Your task to perform on an android device: install app "Viber Messenger" Image 0: 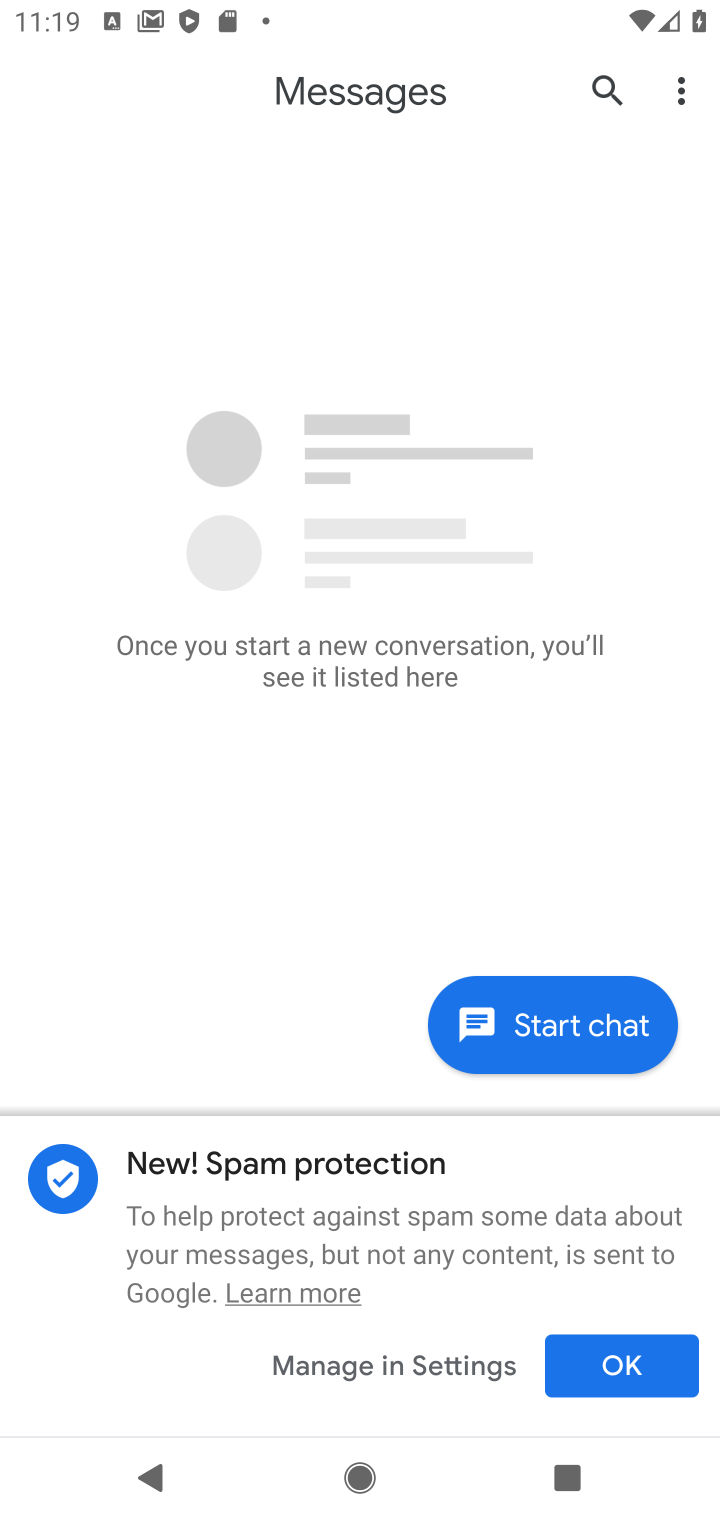
Step 0: press home button
Your task to perform on an android device: install app "Viber Messenger" Image 1: 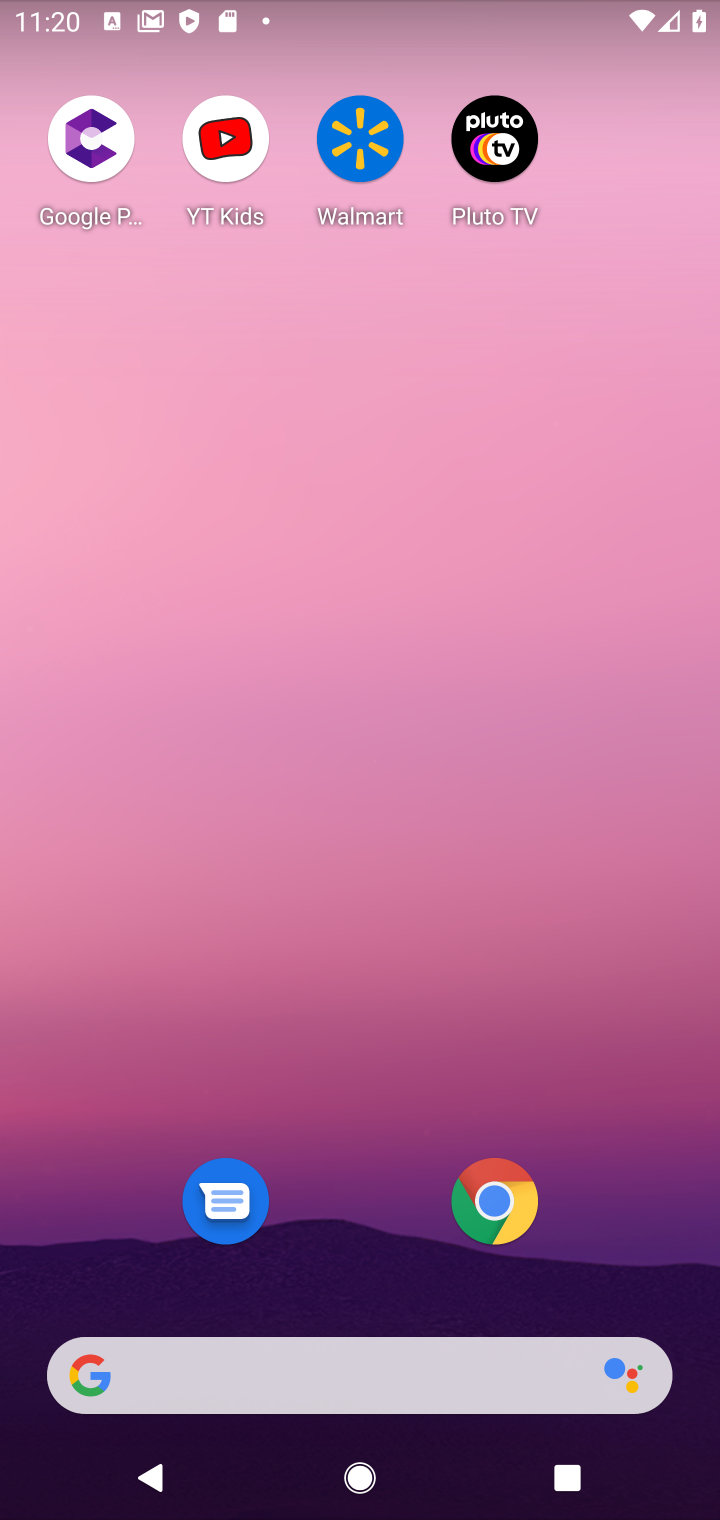
Step 1: drag from (356, 984) to (462, 140)
Your task to perform on an android device: install app "Viber Messenger" Image 2: 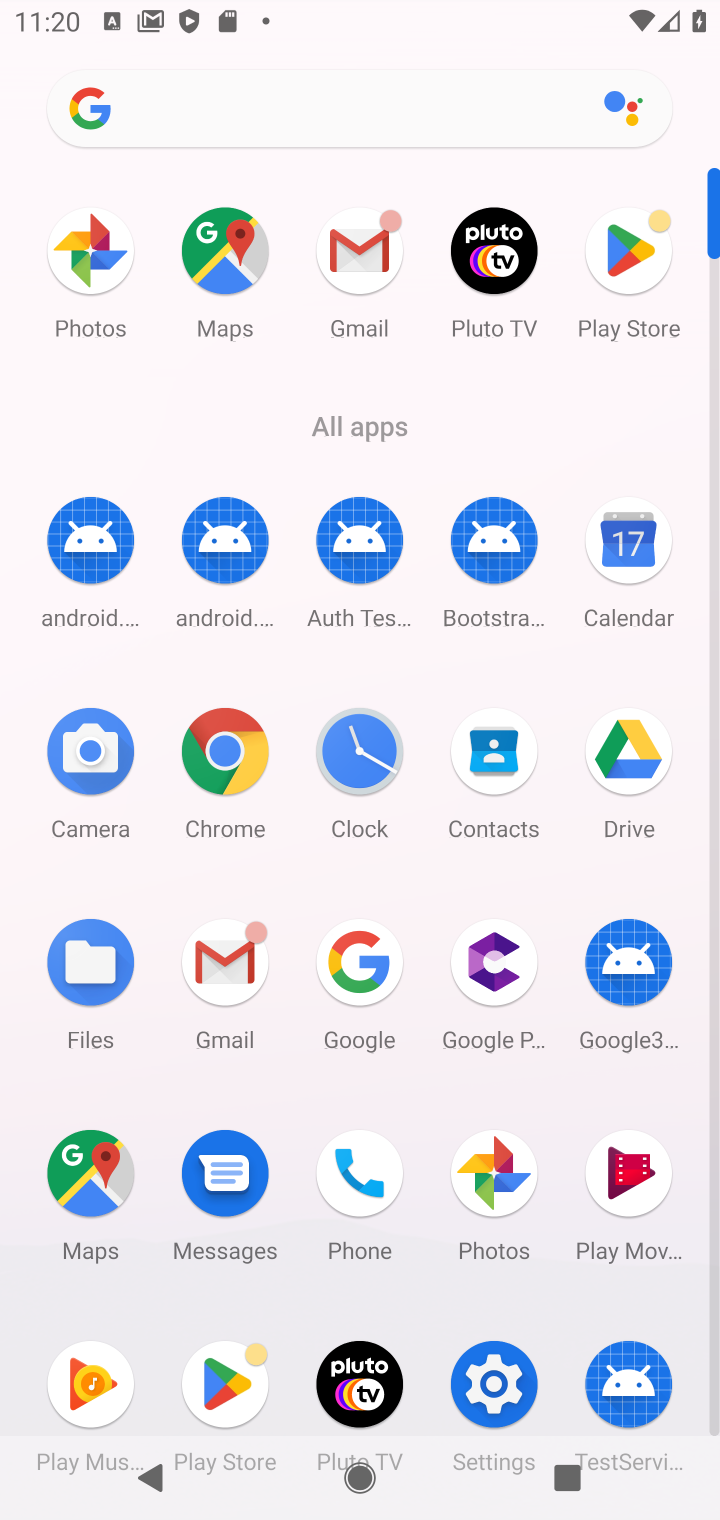
Step 2: click (631, 268)
Your task to perform on an android device: install app "Viber Messenger" Image 3: 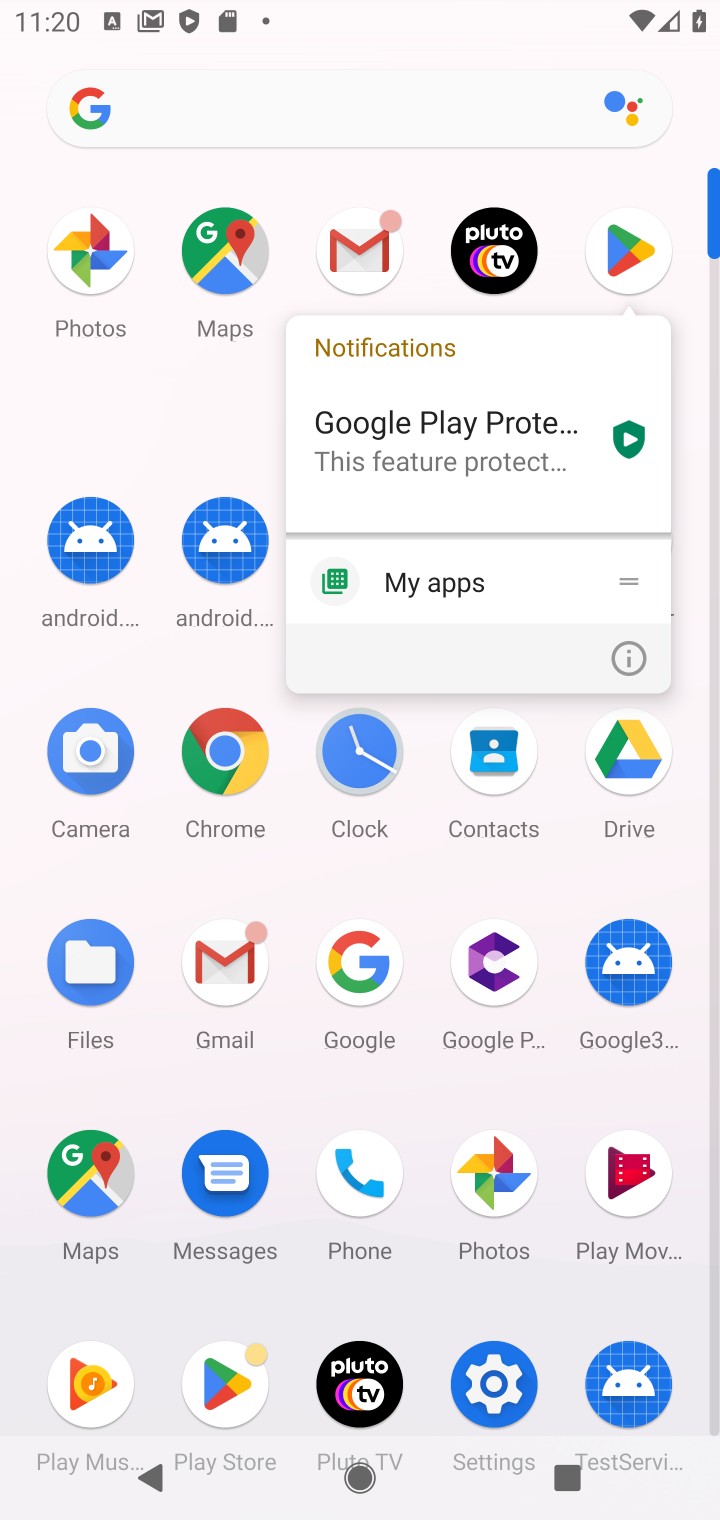
Step 3: click (624, 245)
Your task to perform on an android device: install app "Viber Messenger" Image 4: 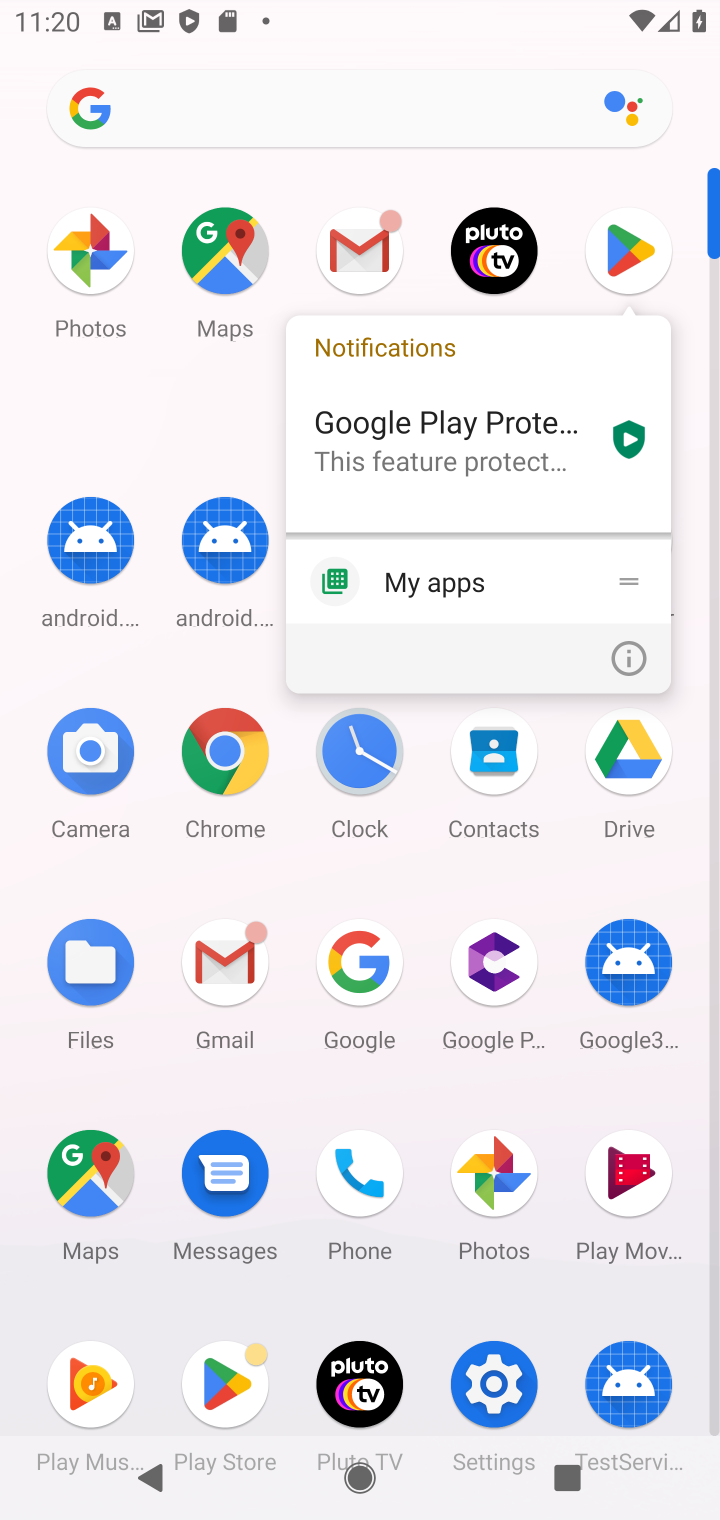
Step 4: click (622, 233)
Your task to perform on an android device: install app "Viber Messenger" Image 5: 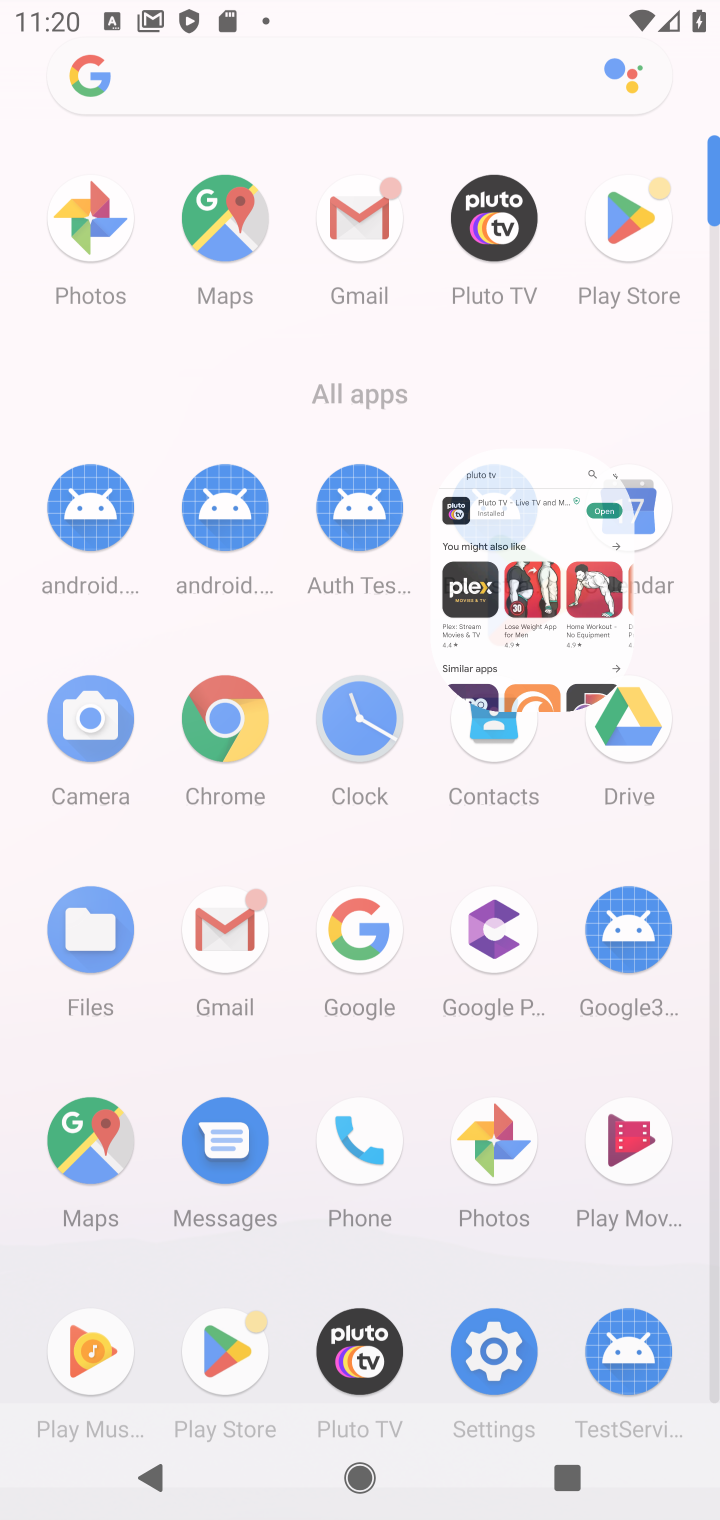
Step 5: click (626, 239)
Your task to perform on an android device: install app "Viber Messenger" Image 6: 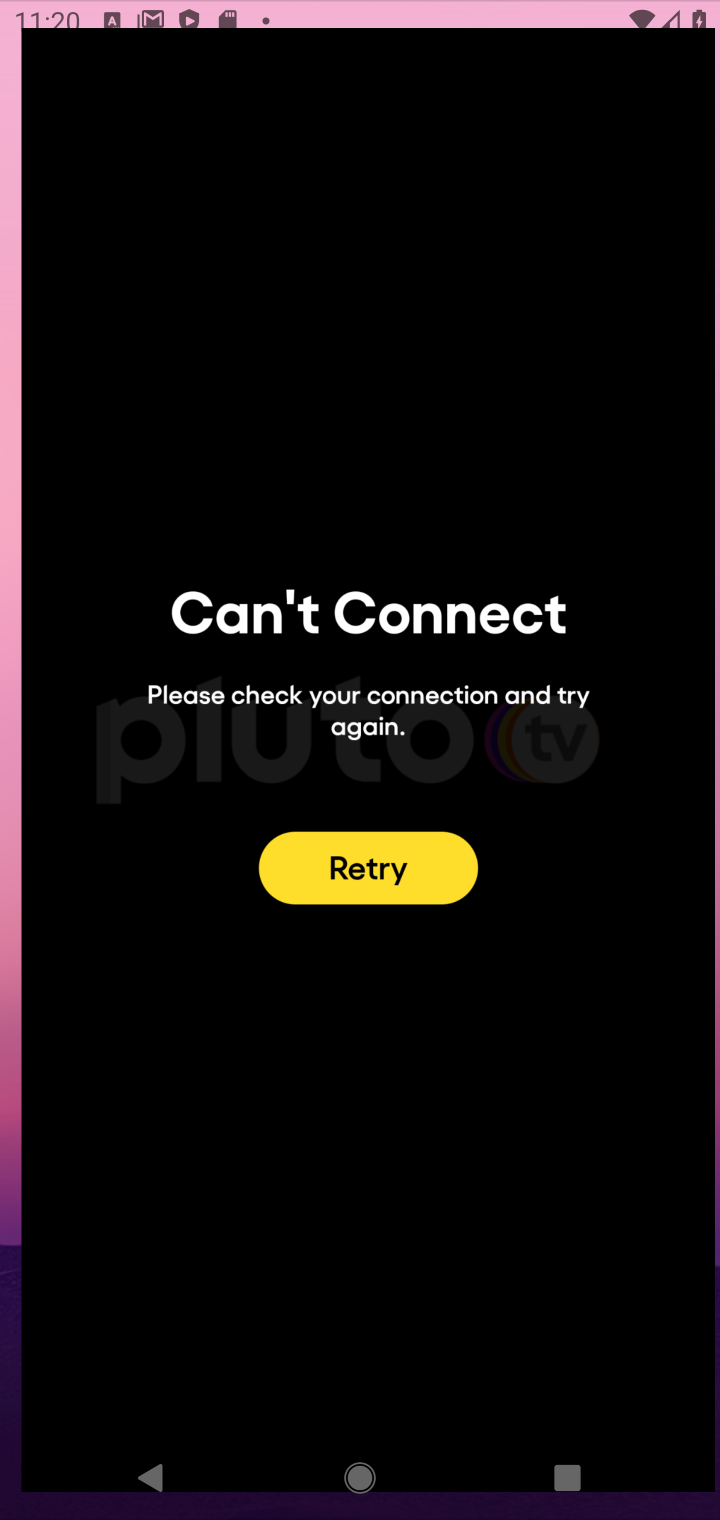
Step 6: click (285, 112)
Your task to perform on an android device: install app "Viber Messenger" Image 7: 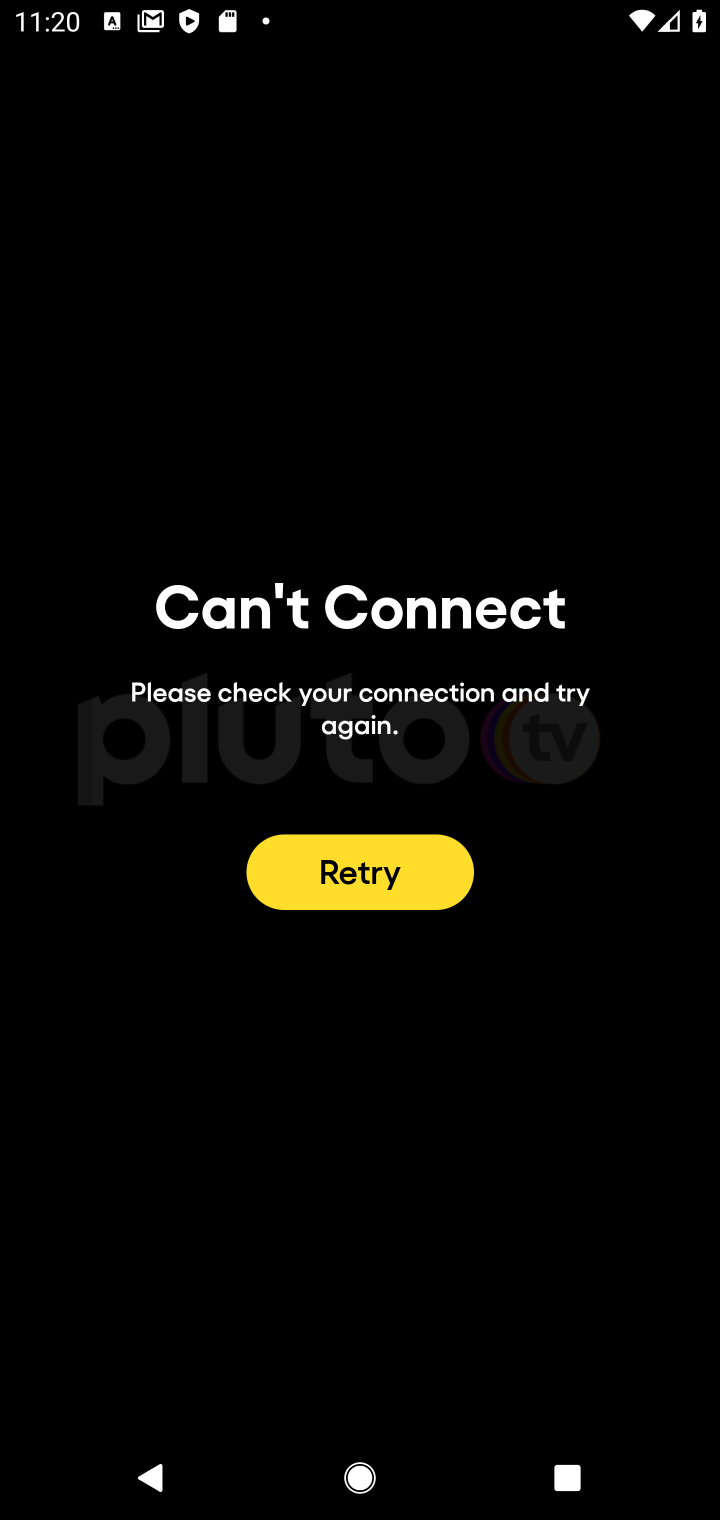
Step 7: press back button
Your task to perform on an android device: install app "Viber Messenger" Image 8: 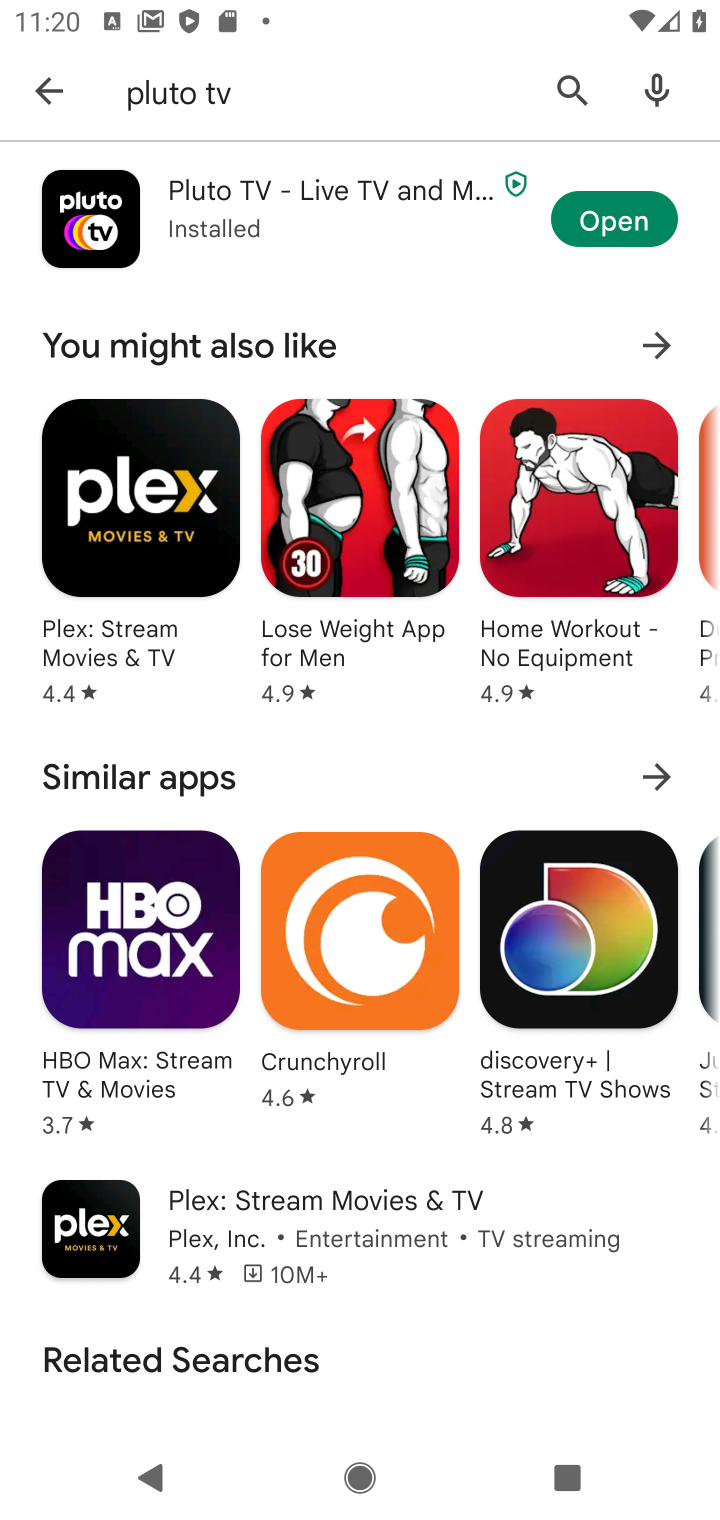
Step 8: click (193, 85)
Your task to perform on an android device: install app "Viber Messenger" Image 9: 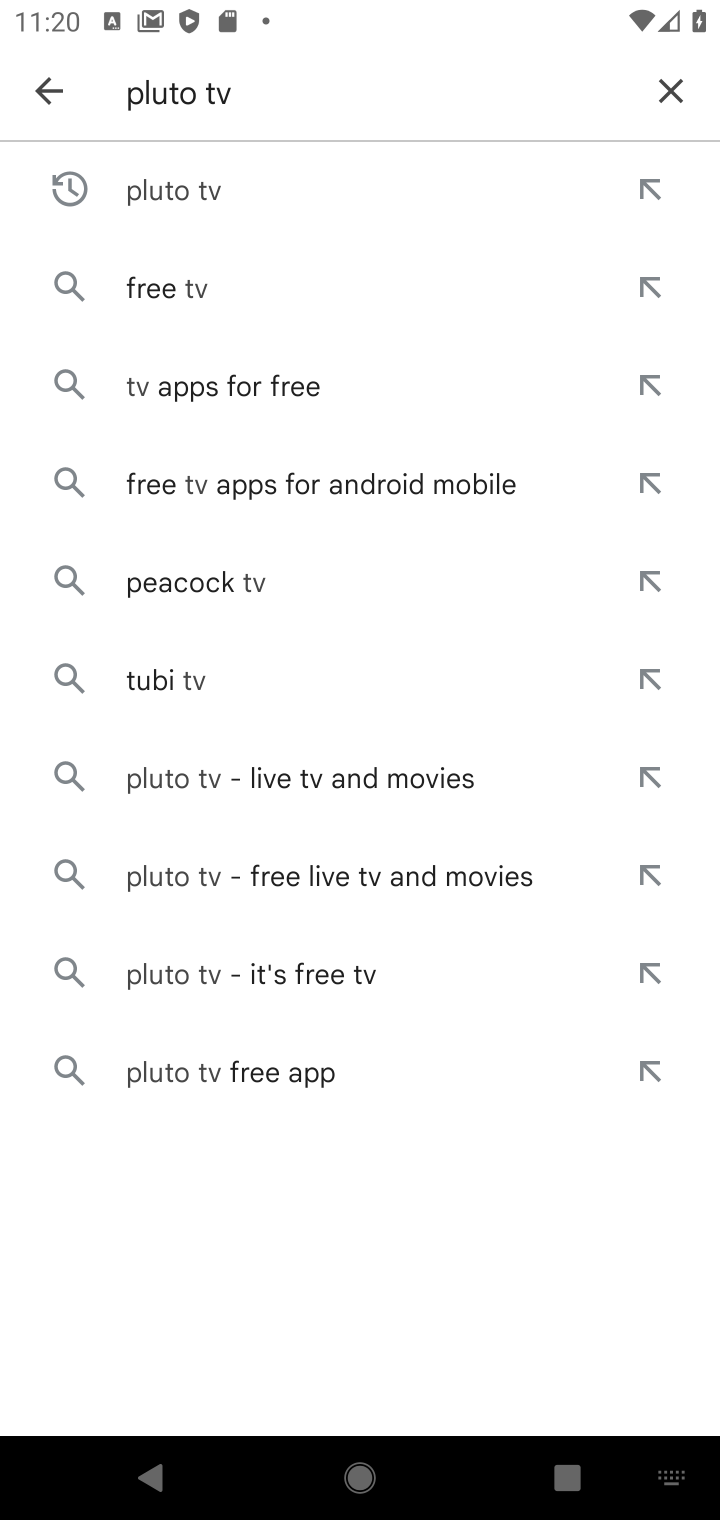
Step 9: click (673, 78)
Your task to perform on an android device: install app "Viber Messenger" Image 10: 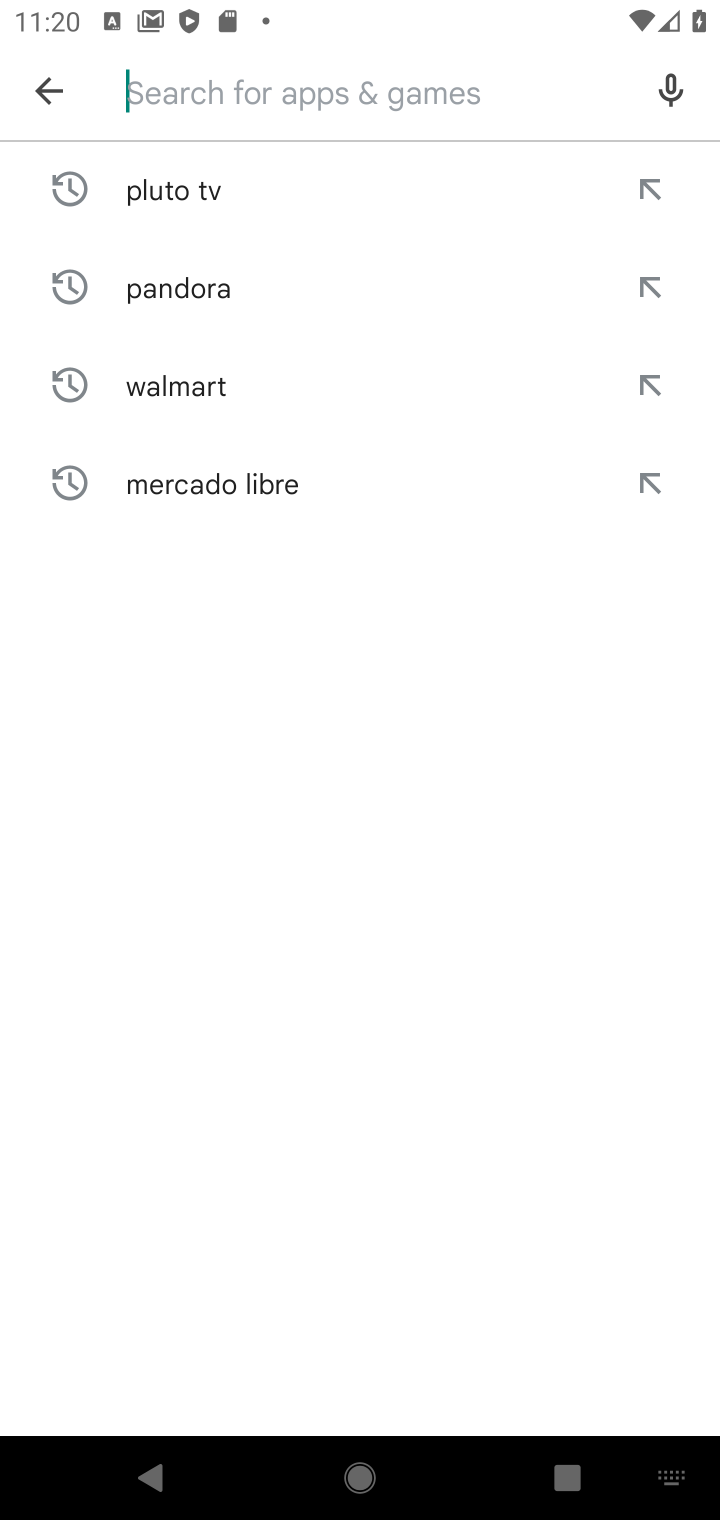
Step 10: type "Viber messenger"
Your task to perform on an android device: install app "Viber Messenger" Image 11: 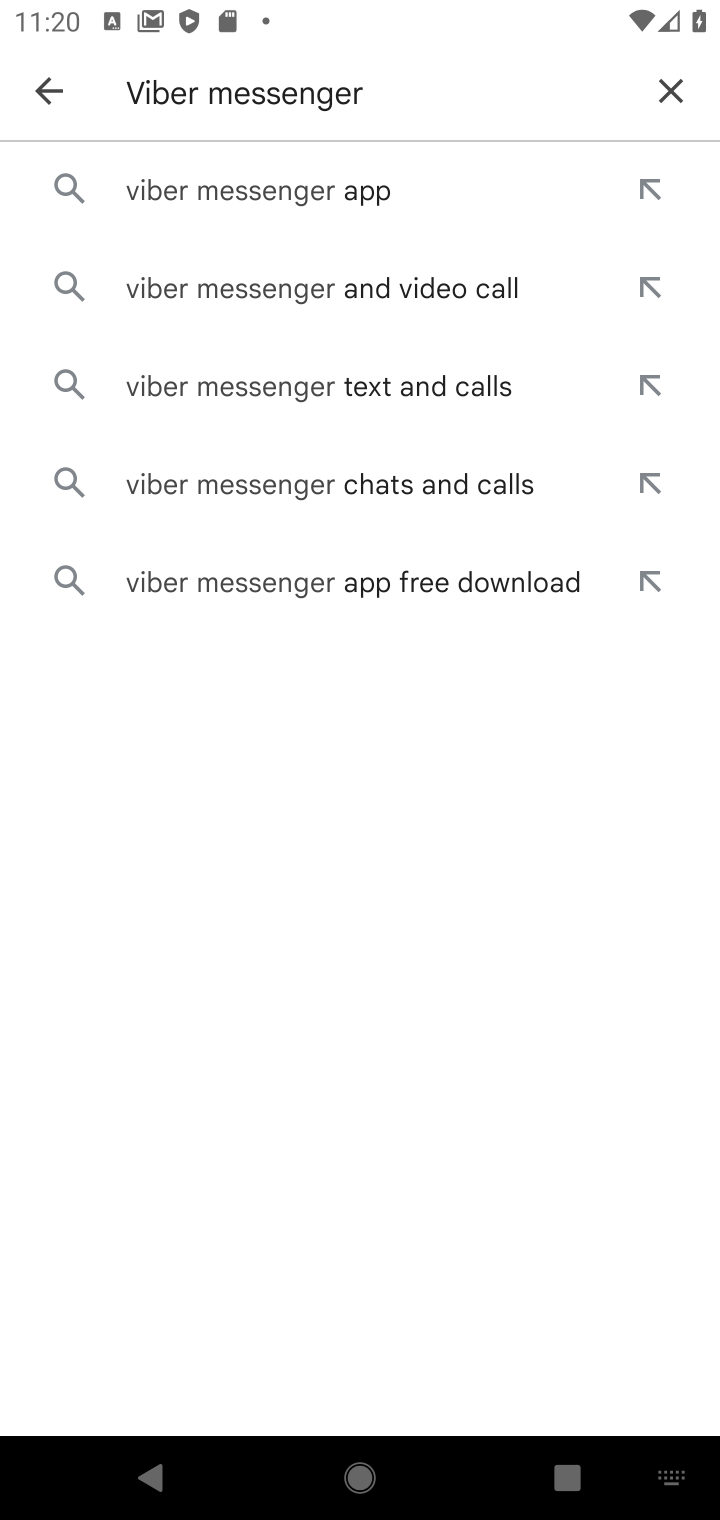
Step 11: click (269, 217)
Your task to perform on an android device: install app "Viber Messenger" Image 12: 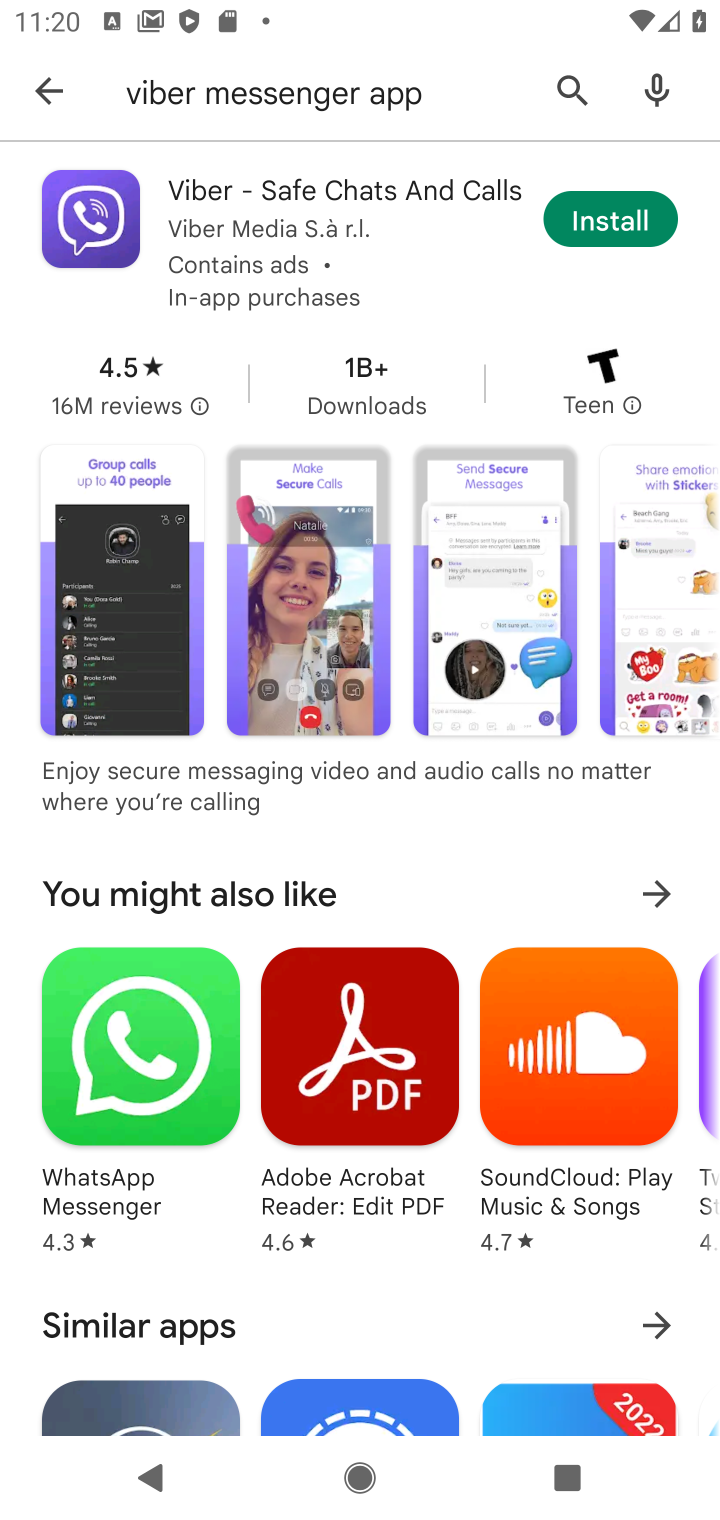
Step 12: click (571, 208)
Your task to perform on an android device: install app "Viber Messenger" Image 13: 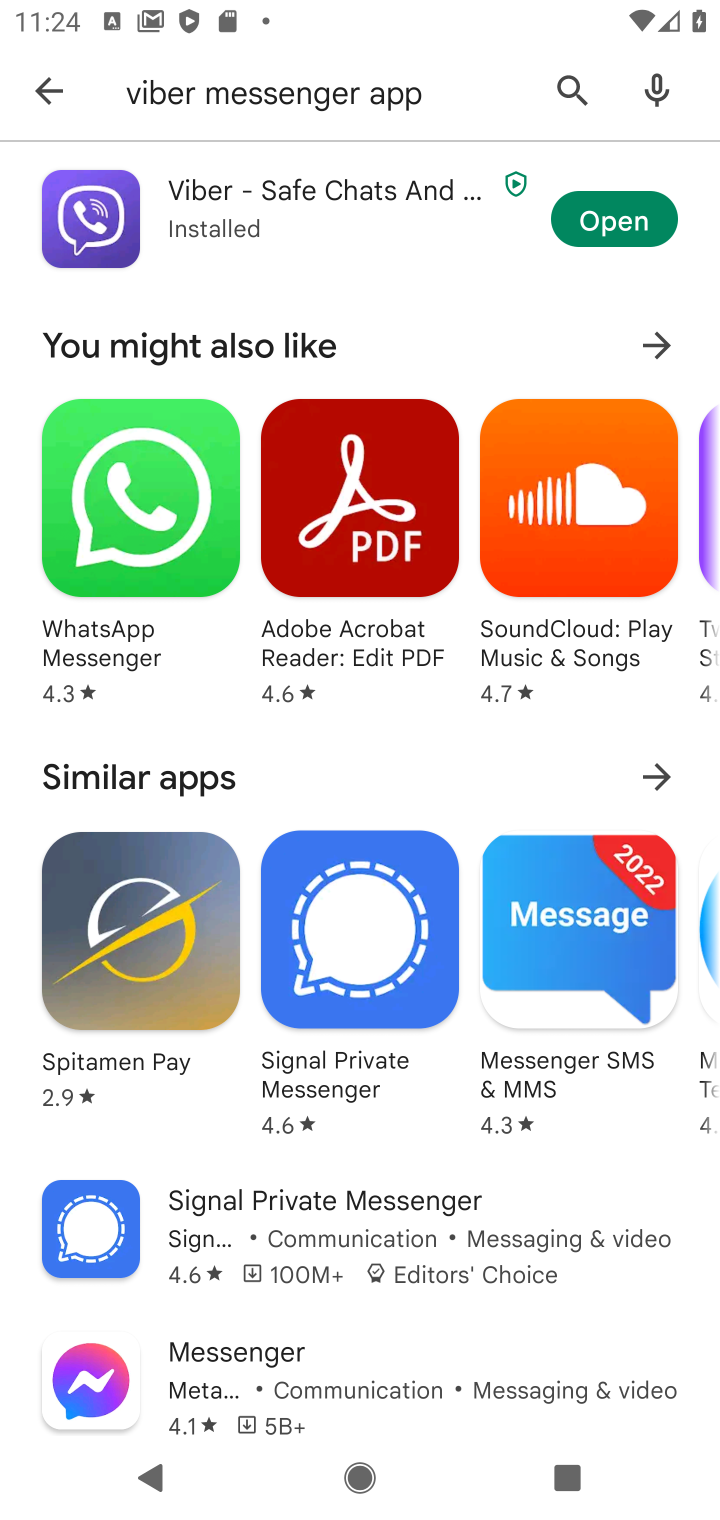
Step 13: task complete